Your task to perform on an android device: turn on airplane mode Image 0: 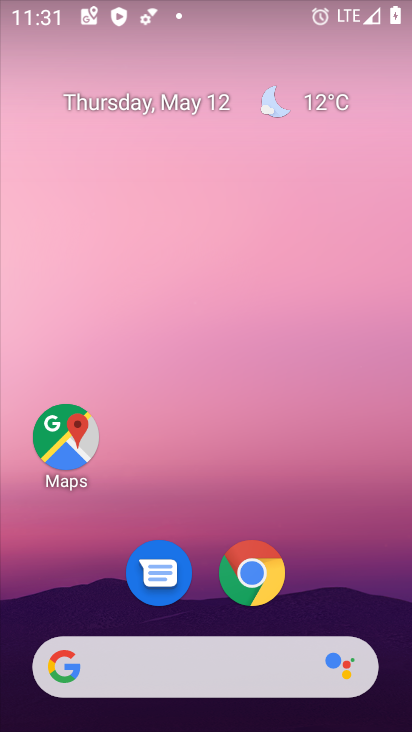
Step 0: drag from (263, 4) to (325, 11)
Your task to perform on an android device: turn on airplane mode Image 1: 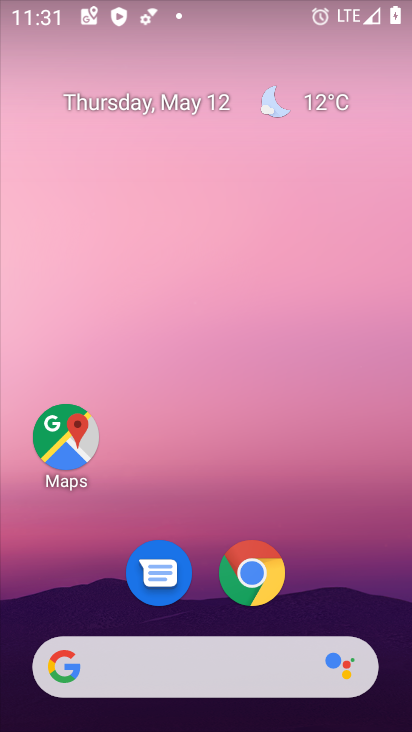
Step 1: drag from (247, 714) to (183, 0)
Your task to perform on an android device: turn on airplane mode Image 2: 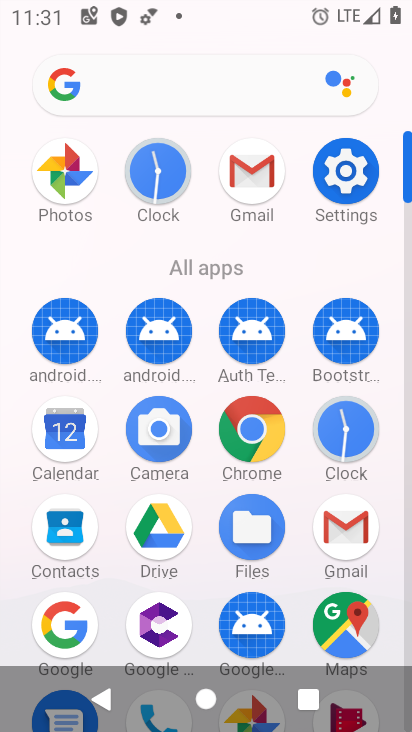
Step 2: click (347, 180)
Your task to perform on an android device: turn on airplane mode Image 3: 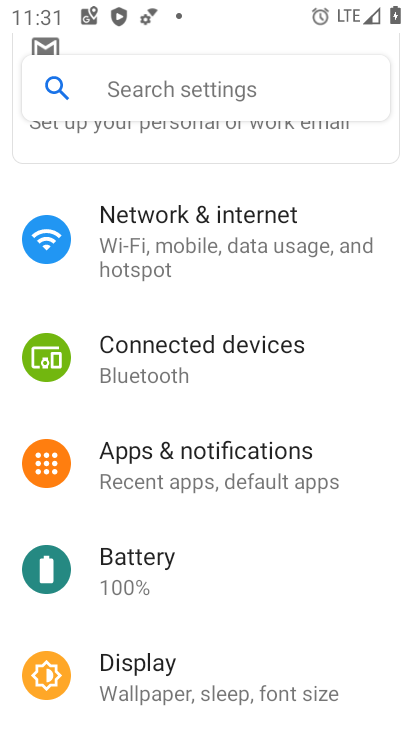
Step 3: click (246, 220)
Your task to perform on an android device: turn on airplane mode Image 4: 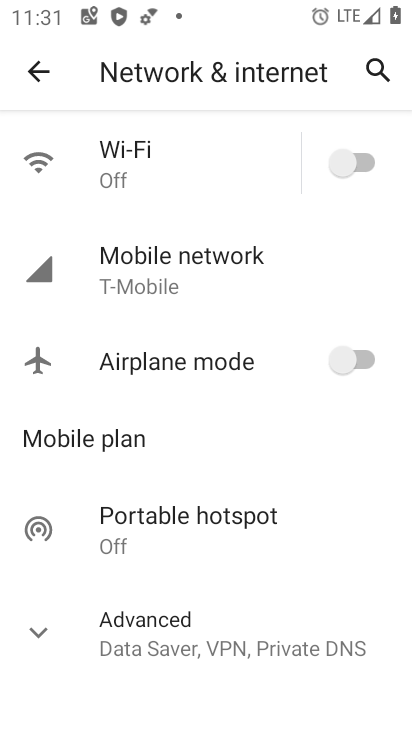
Step 4: click (349, 361)
Your task to perform on an android device: turn on airplane mode Image 5: 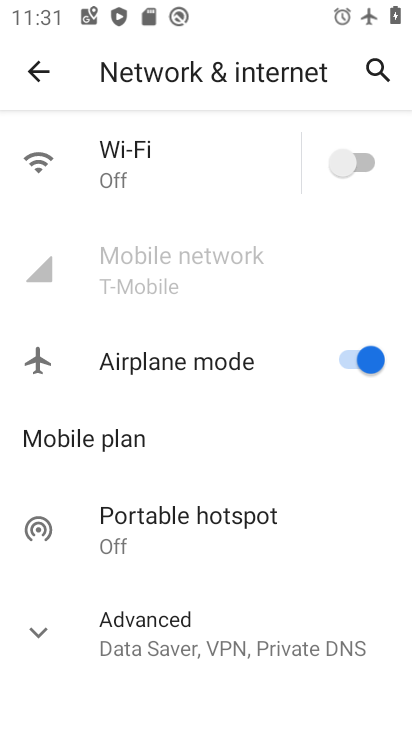
Step 5: task complete